Your task to perform on an android device: Open the calendar and show me this week's events? Image 0: 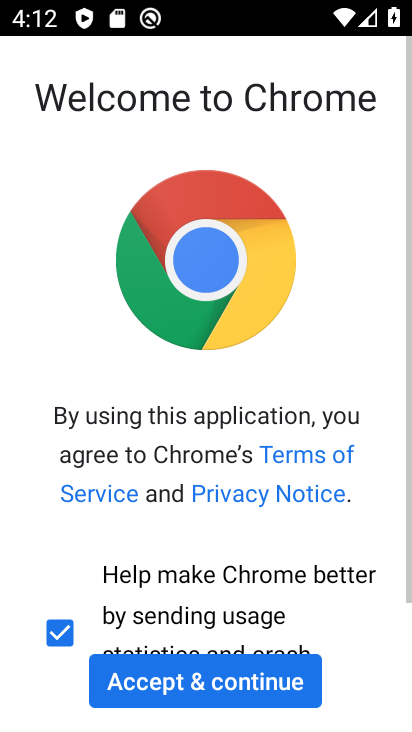
Step 0: press home button
Your task to perform on an android device: Open the calendar and show me this week's events? Image 1: 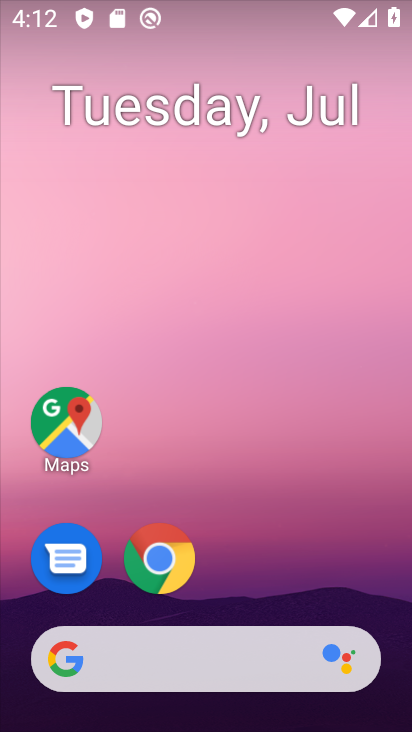
Step 1: drag from (216, 621) to (314, 162)
Your task to perform on an android device: Open the calendar and show me this week's events? Image 2: 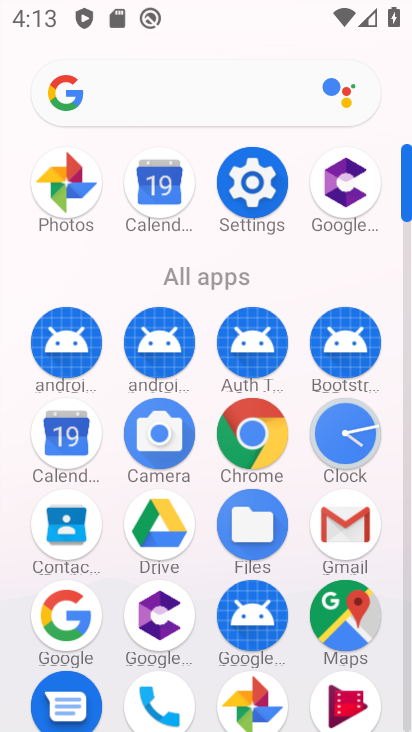
Step 2: click (69, 451)
Your task to perform on an android device: Open the calendar and show me this week's events? Image 3: 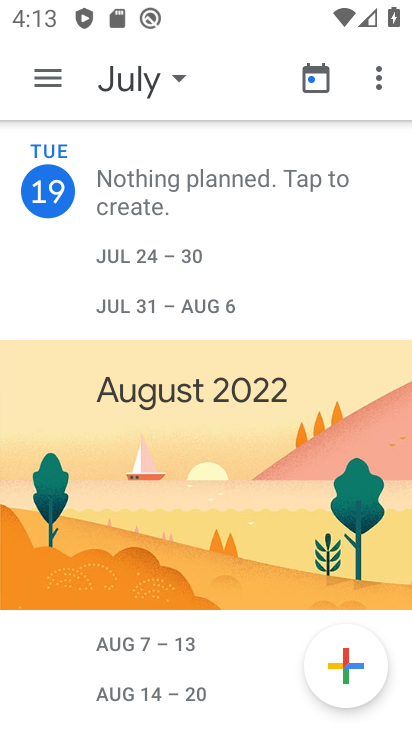
Step 3: click (150, 92)
Your task to perform on an android device: Open the calendar and show me this week's events? Image 4: 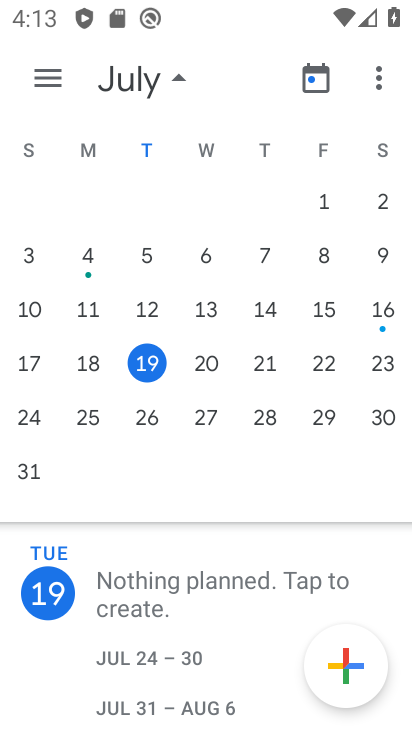
Step 4: task complete